Your task to perform on an android device: open app "Life360: Find Family & Friends" (install if not already installed) Image 0: 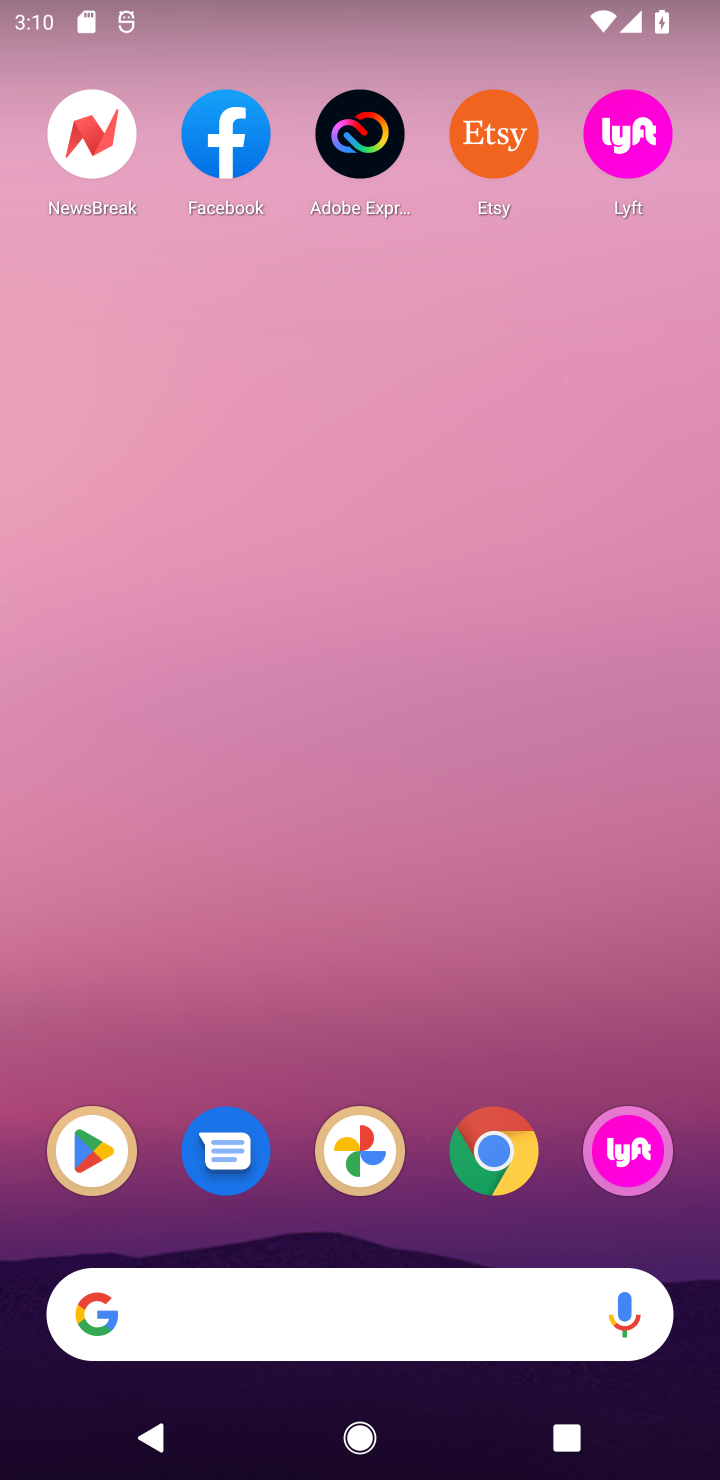
Step 0: drag from (402, 1423) to (403, 355)
Your task to perform on an android device: open app "Life360: Find Family & Friends" (install if not already installed) Image 1: 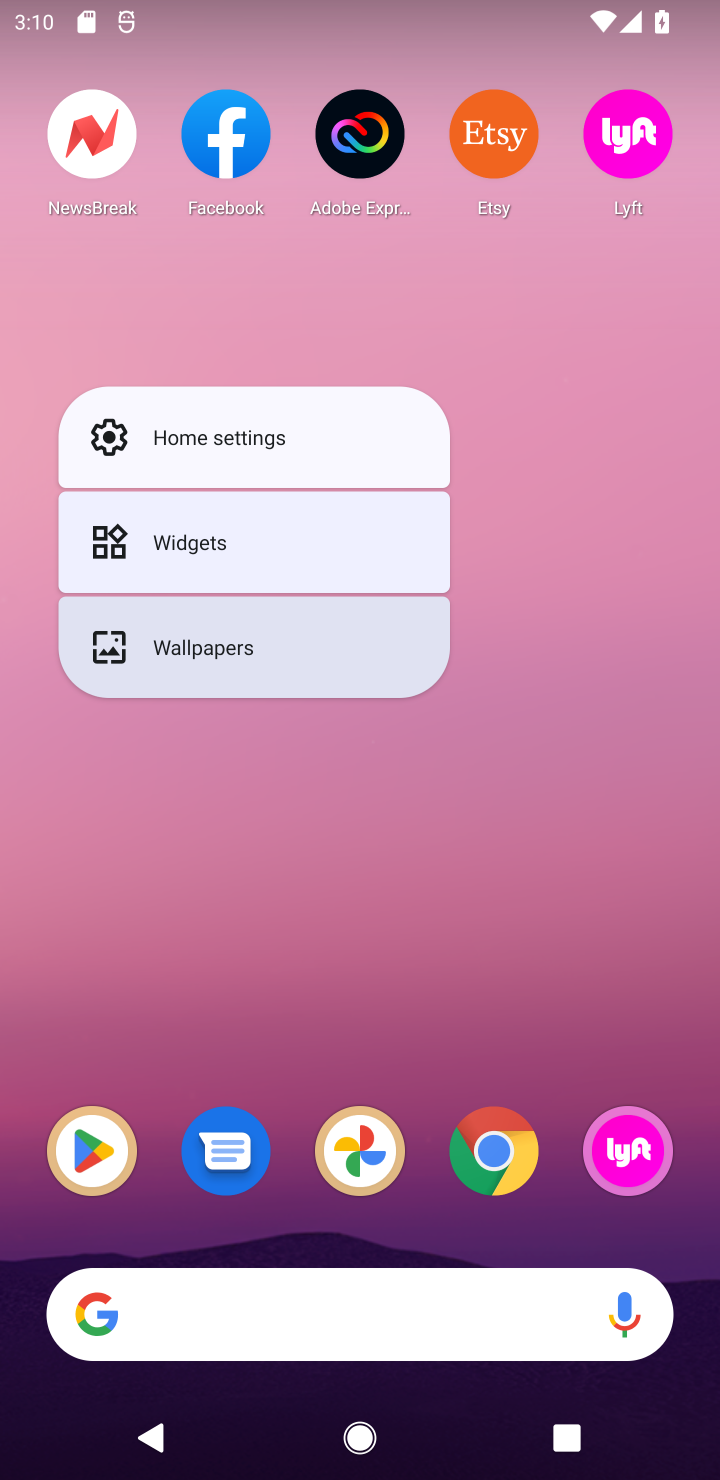
Step 1: click (514, 814)
Your task to perform on an android device: open app "Life360: Find Family & Friends" (install if not already installed) Image 2: 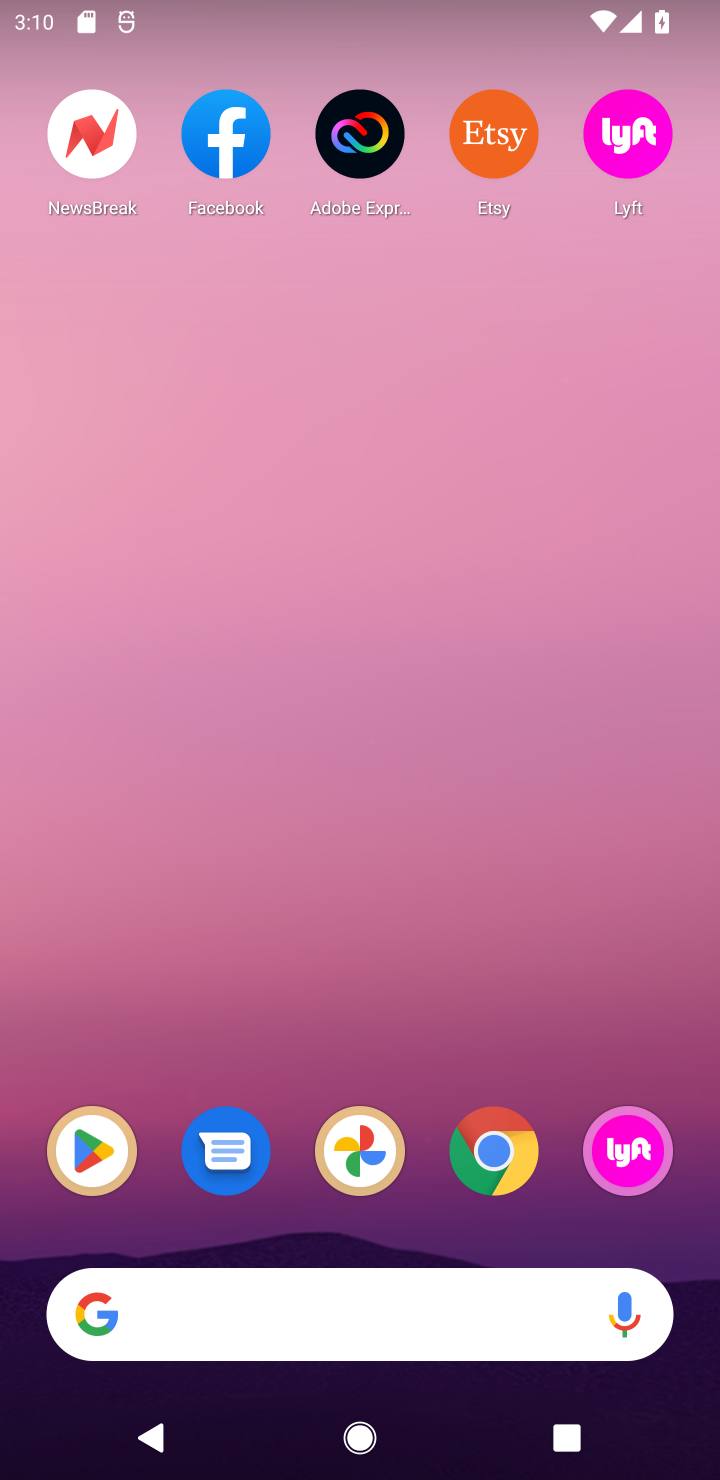
Step 2: drag from (433, 1416) to (446, 332)
Your task to perform on an android device: open app "Life360: Find Family & Friends" (install if not already installed) Image 3: 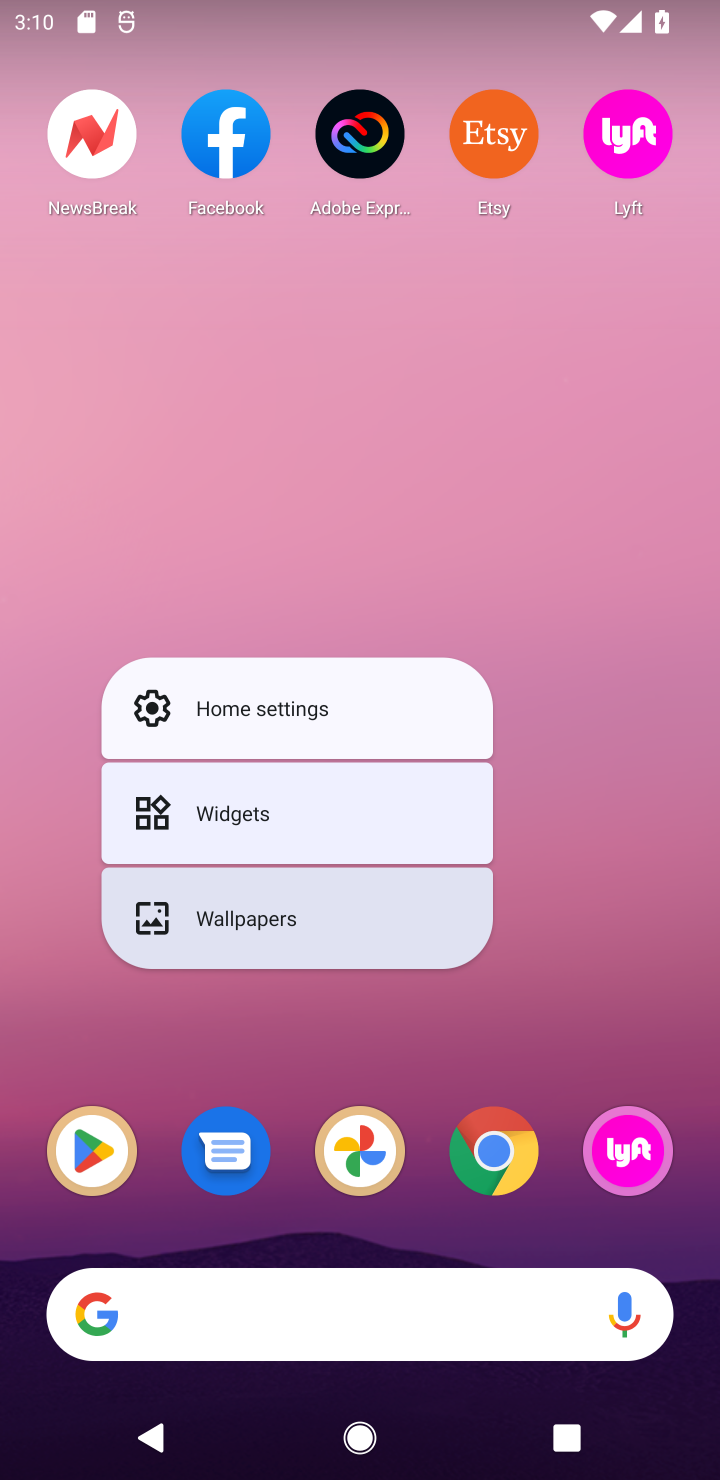
Step 3: click (585, 861)
Your task to perform on an android device: open app "Life360: Find Family & Friends" (install if not already installed) Image 4: 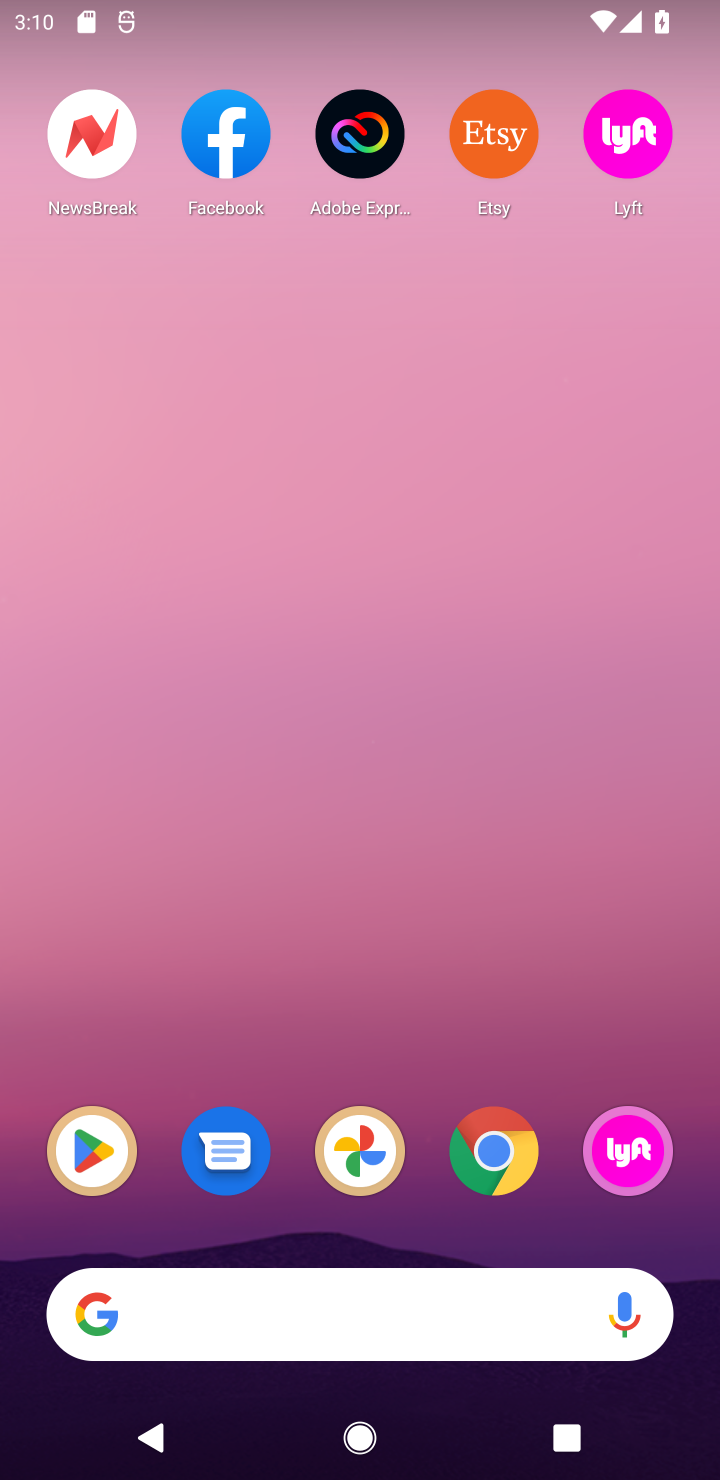
Step 4: drag from (421, 1395) to (432, 390)
Your task to perform on an android device: open app "Life360: Find Family & Friends" (install if not already installed) Image 5: 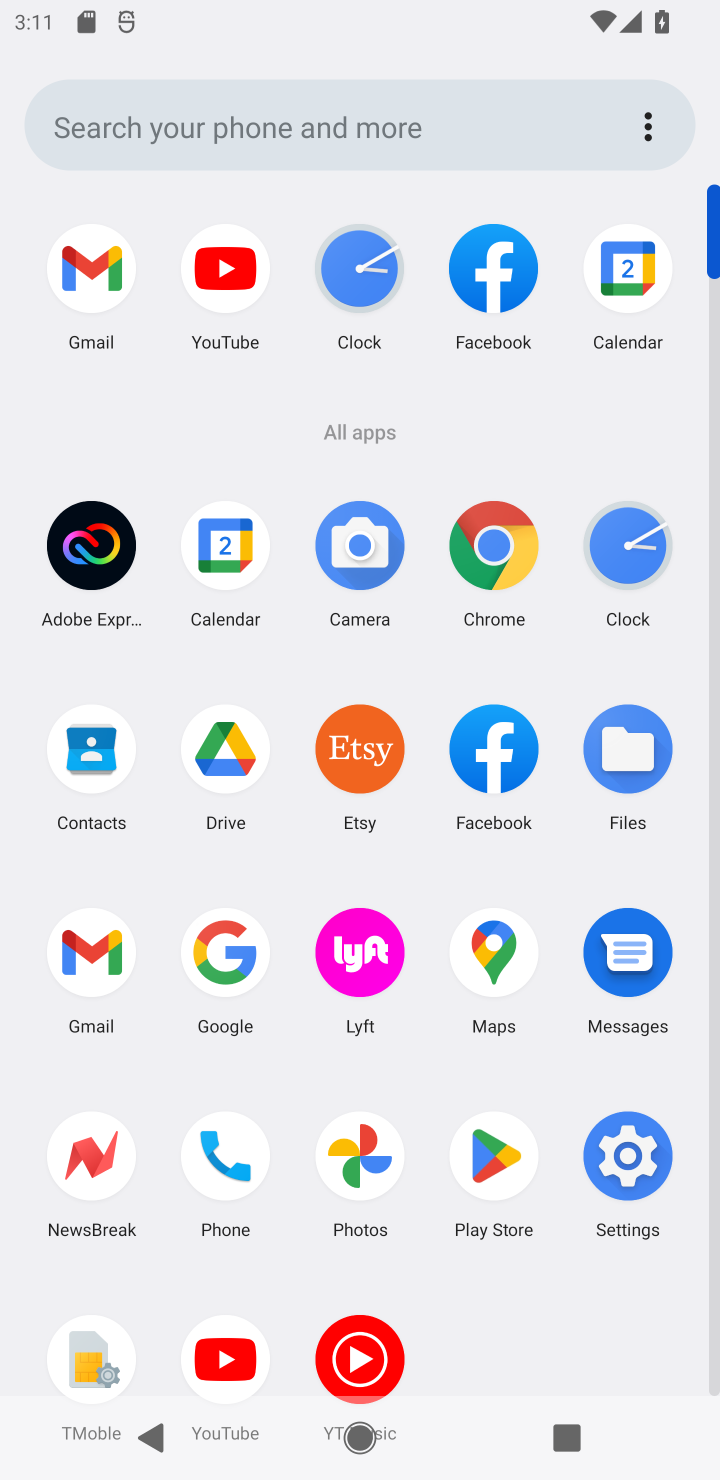
Step 5: click (489, 1159)
Your task to perform on an android device: open app "Life360: Find Family & Friends" (install if not already installed) Image 6: 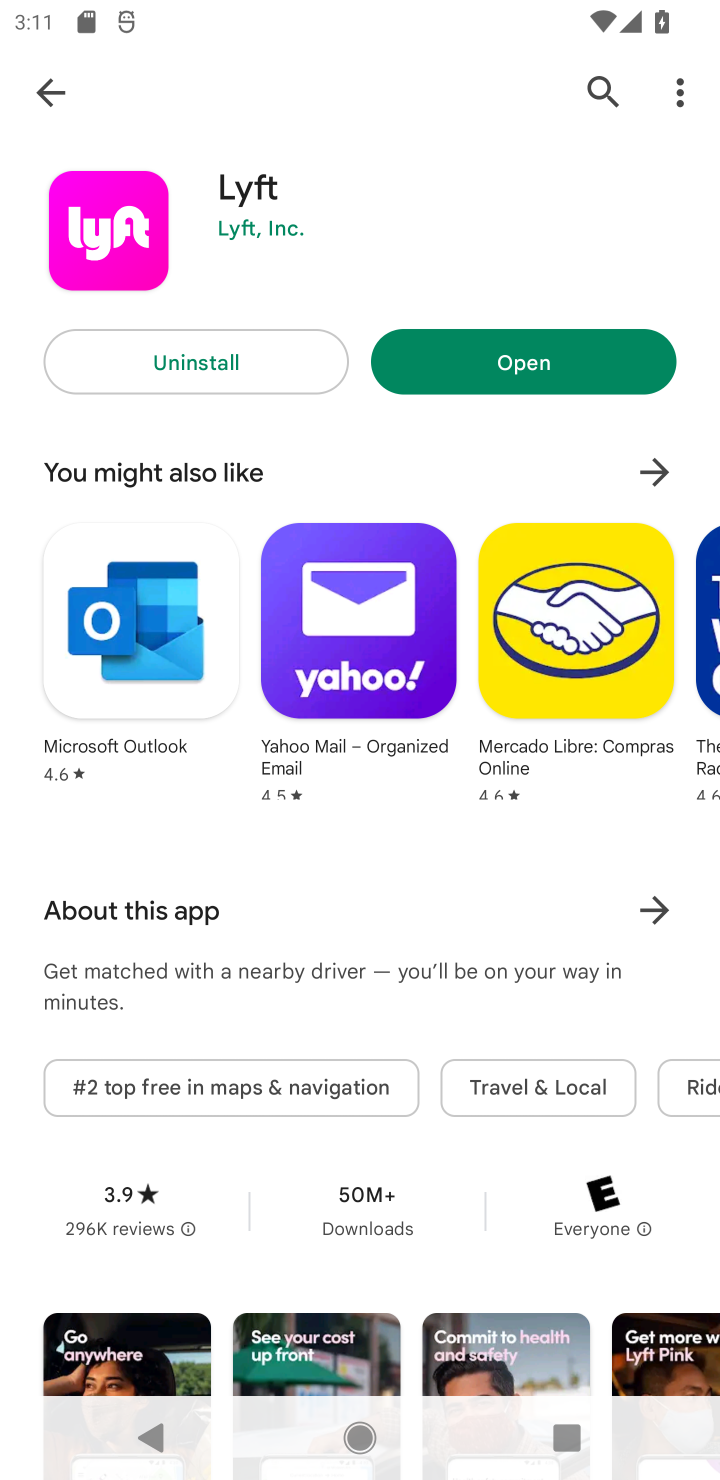
Step 6: click (608, 72)
Your task to perform on an android device: open app "Life360: Find Family & Friends" (install if not already installed) Image 7: 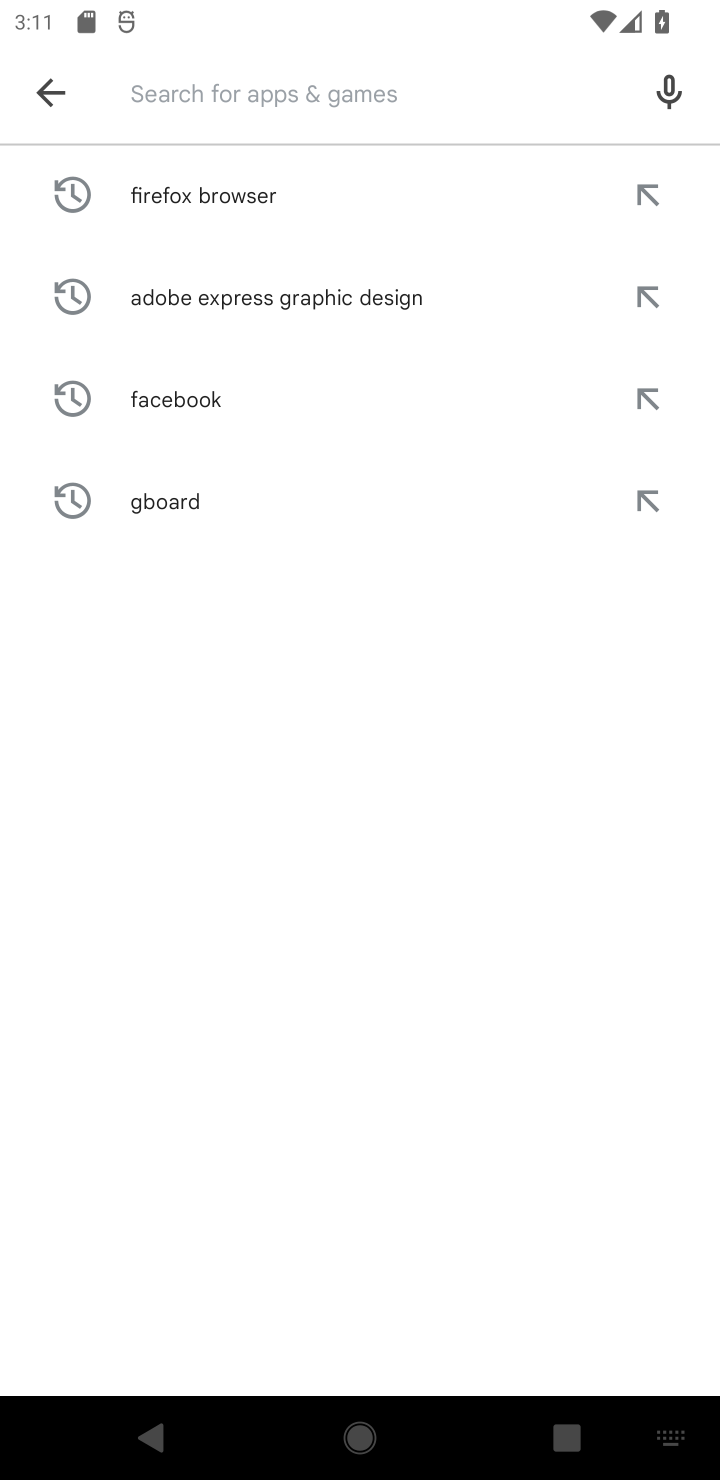
Step 7: type "Life360: Find Family & Friends"
Your task to perform on an android device: open app "Life360: Find Family & Friends" (install if not already installed) Image 8: 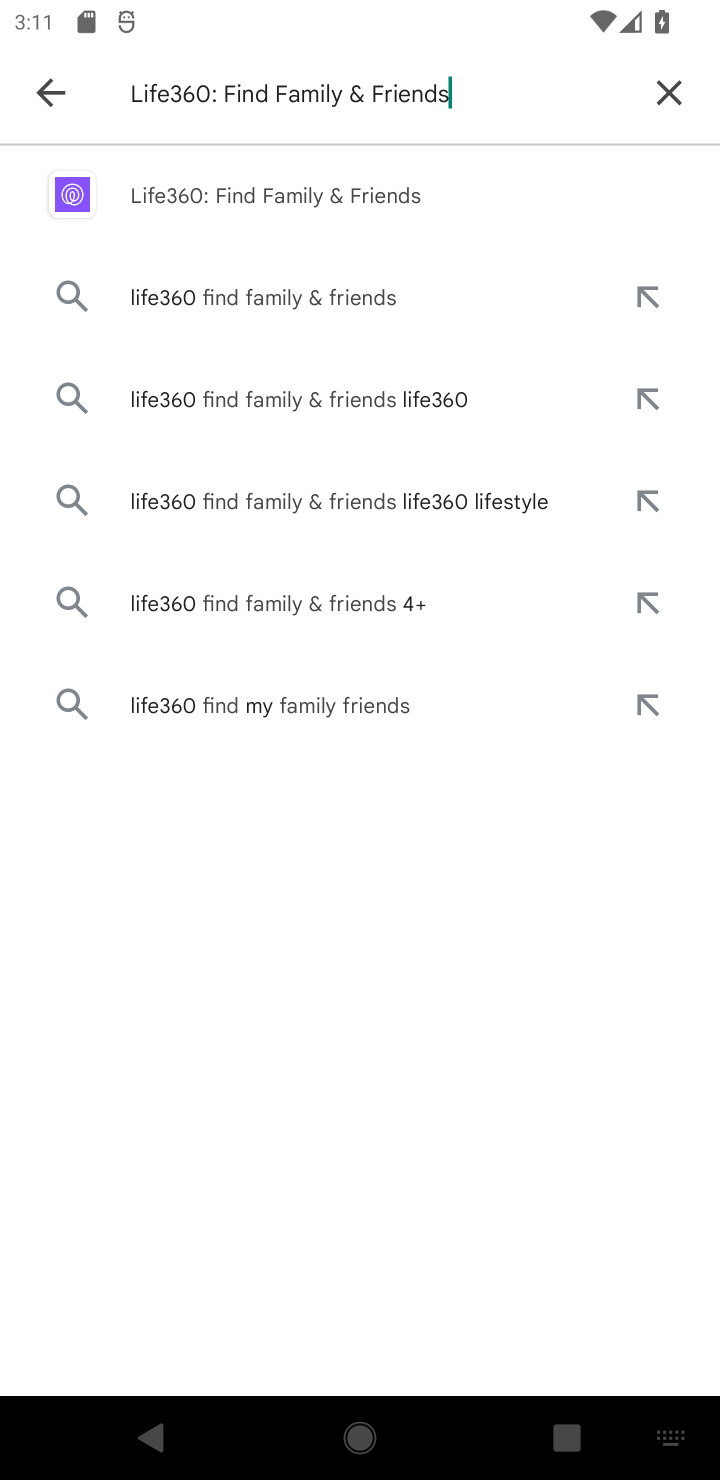
Step 8: click (262, 199)
Your task to perform on an android device: open app "Life360: Find Family & Friends" (install if not already installed) Image 9: 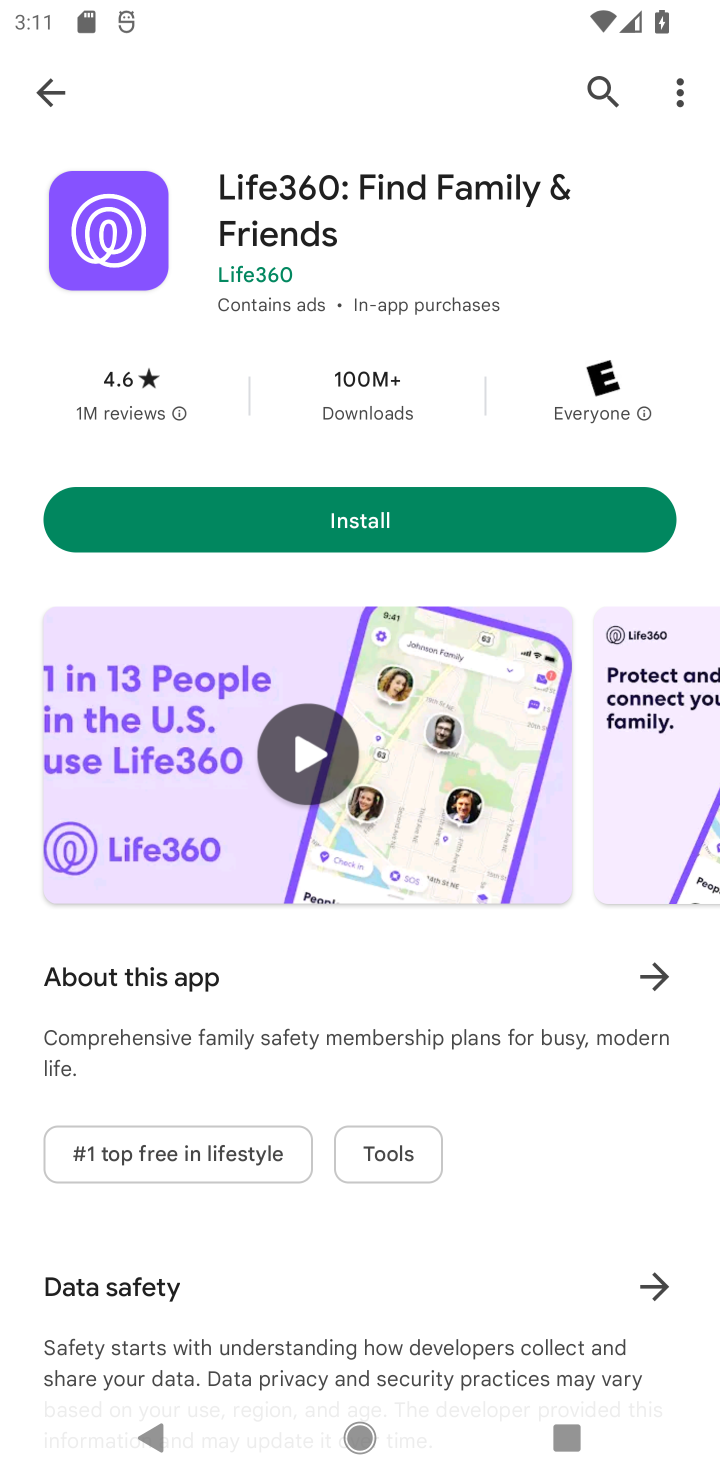
Step 9: click (381, 523)
Your task to perform on an android device: open app "Life360: Find Family & Friends" (install if not already installed) Image 10: 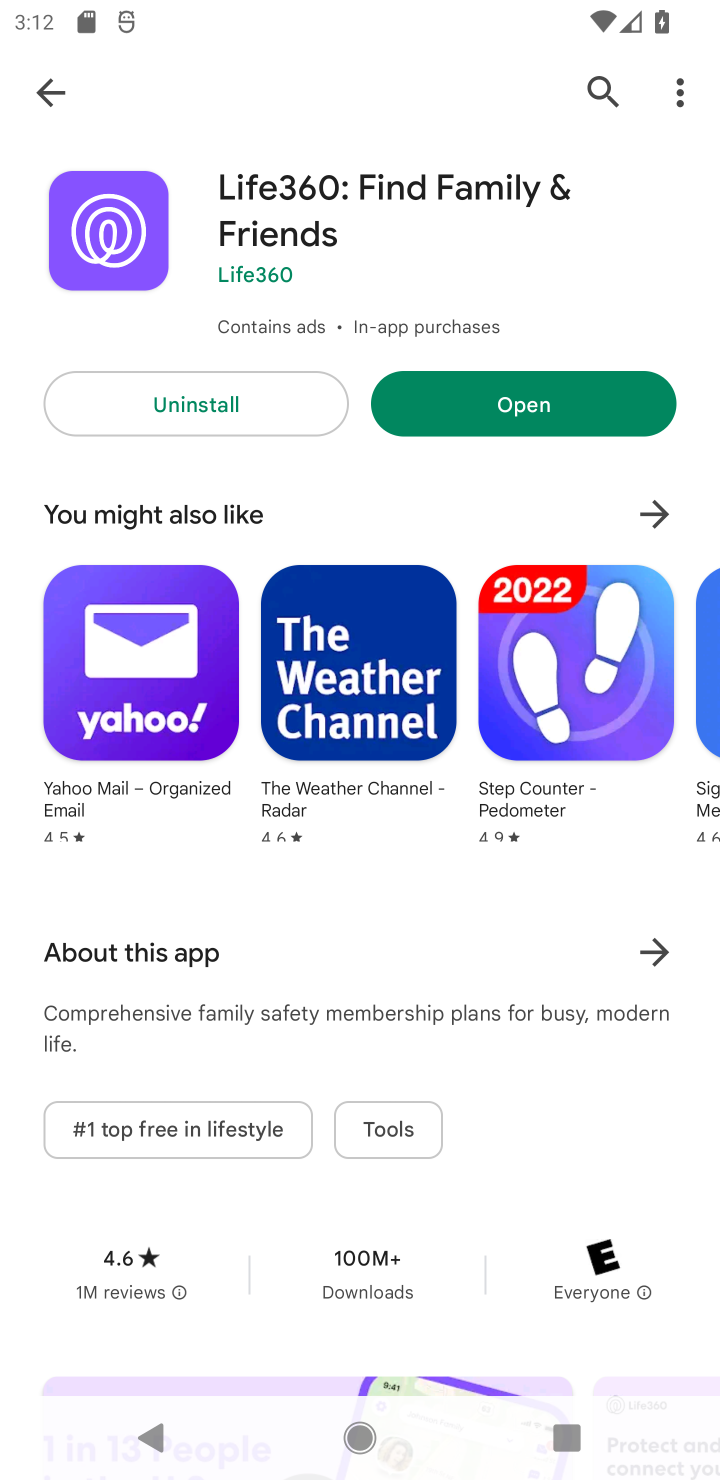
Step 10: task complete